Your task to perform on an android device: Go to wifi settings Image 0: 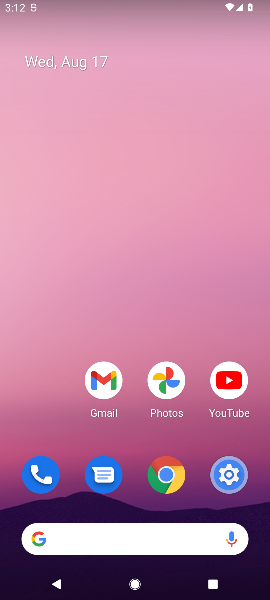
Step 0: click (234, 482)
Your task to perform on an android device: Go to wifi settings Image 1: 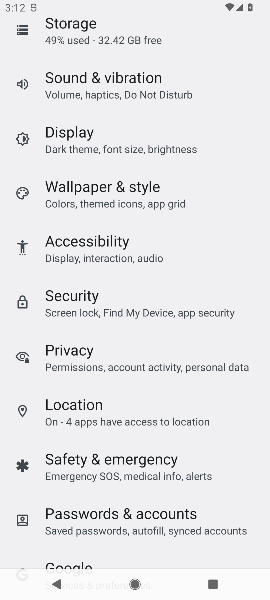
Step 1: drag from (203, 111) to (109, 529)
Your task to perform on an android device: Go to wifi settings Image 2: 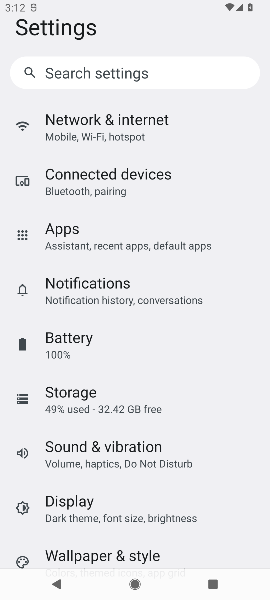
Step 2: click (115, 133)
Your task to perform on an android device: Go to wifi settings Image 3: 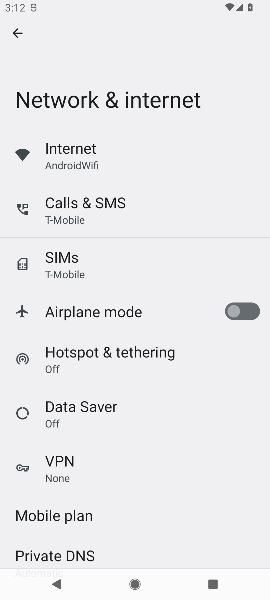
Step 3: click (57, 166)
Your task to perform on an android device: Go to wifi settings Image 4: 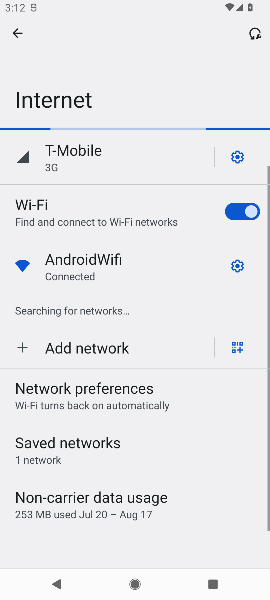
Step 4: task complete